Your task to perform on an android device: turn off airplane mode Image 0: 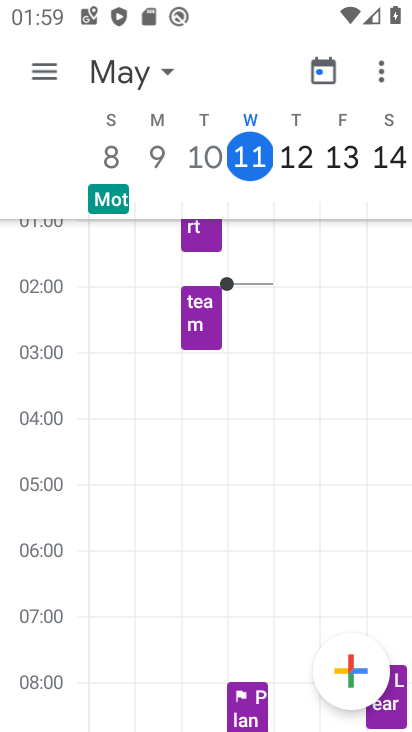
Step 0: press home button
Your task to perform on an android device: turn off airplane mode Image 1: 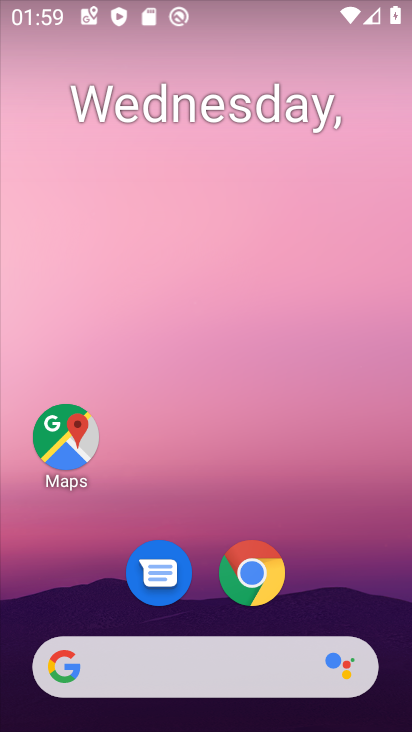
Step 1: drag from (328, 565) to (254, 34)
Your task to perform on an android device: turn off airplane mode Image 2: 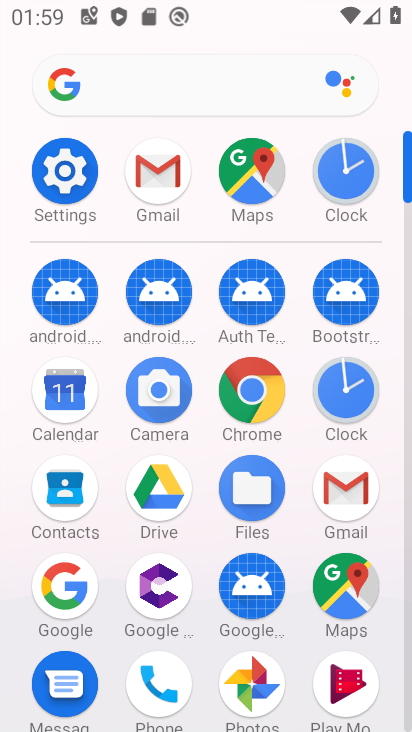
Step 2: click (64, 167)
Your task to perform on an android device: turn off airplane mode Image 3: 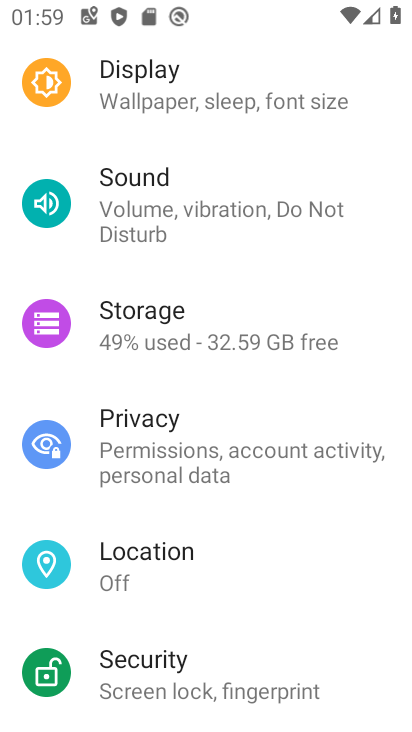
Step 3: drag from (247, 129) to (275, 402)
Your task to perform on an android device: turn off airplane mode Image 4: 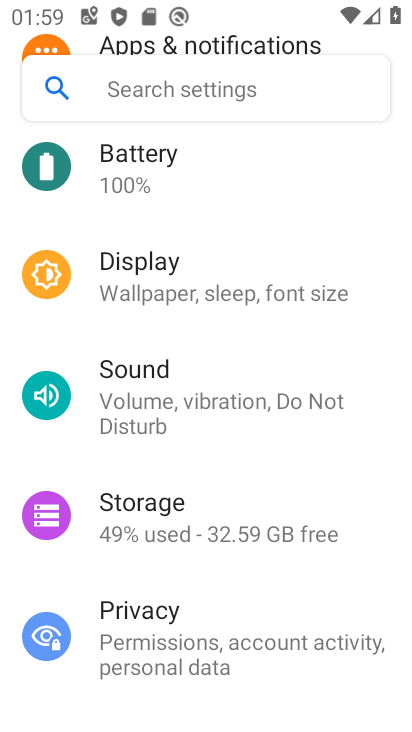
Step 4: drag from (267, 189) to (286, 499)
Your task to perform on an android device: turn off airplane mode Image 5: 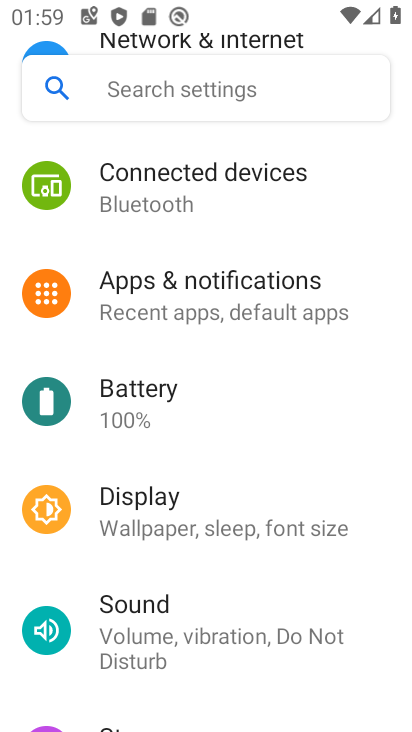
Step 5: drag from (260, 215) to (319, 554)
Your task to perform on an android device: turn off airplane mode Image 6: 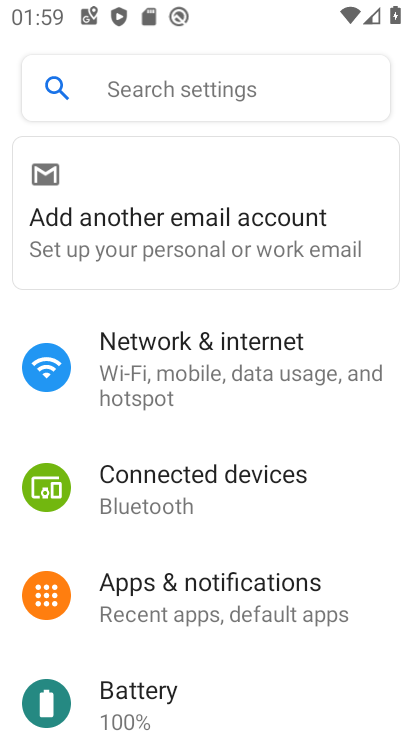
Step 6: click (237, 352)
Your task to perform on an android device: turn off airplane mode Image 7: 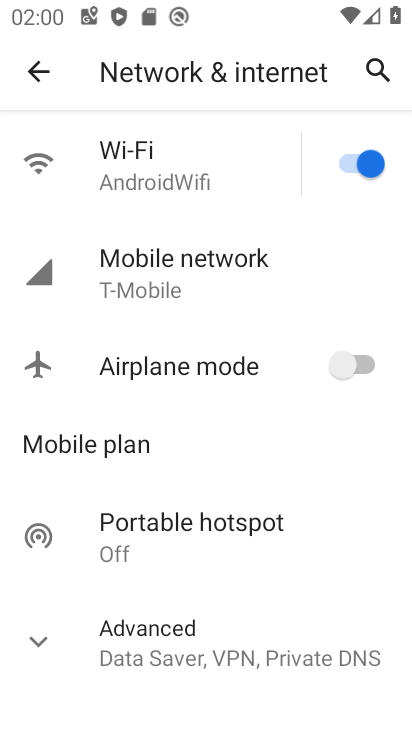
Step 7: task complete